Your task to perform on an android device: check battery use Image 0: 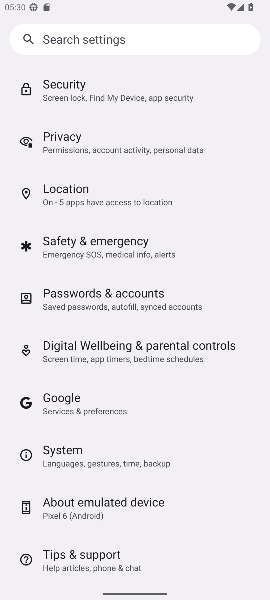
Step 0: drag from (132, 151) to (117, 467)
Your task to perform on an android device: check battery use Image 1: 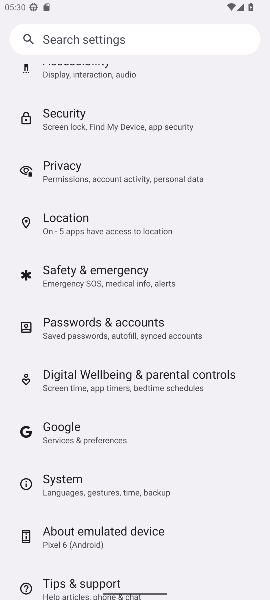
Step 1: drag from (149, 107) to (160, 333)
Your task to perform on an android device: check battery use Image 2: 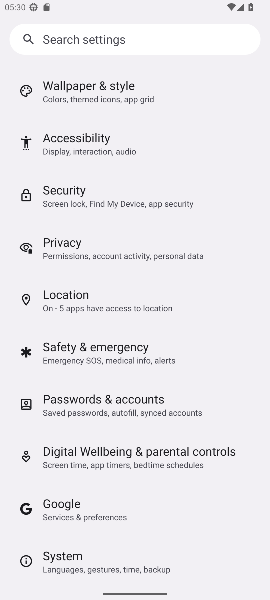
Step 2: drag from (94, 132) to (93, 536)
Your task to perform on an android device: check battery use Image 3: 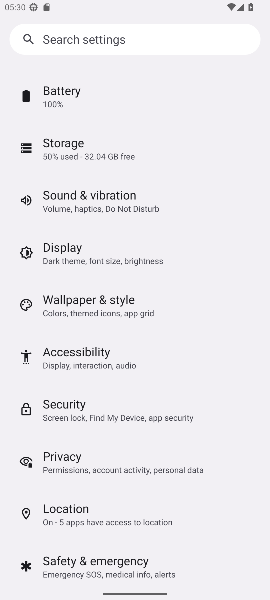
Step 3: click (114, 100)
Your task to perform on an android device: check battery use Image 4: 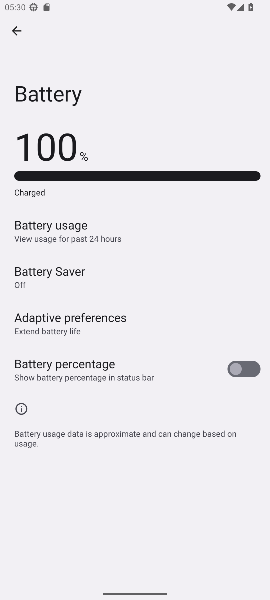
Step 4: click (88, 234)
Your task to perform on an android device: check battery use Image 5: 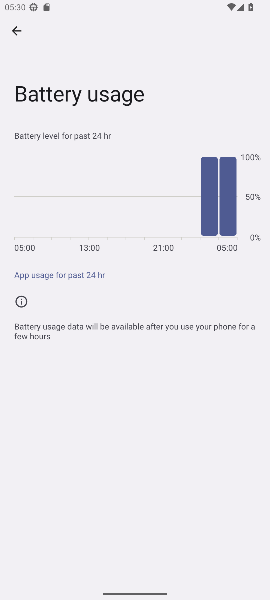
Step 5: task complete